Your task to perform on an android device: toggle location history Image 0: 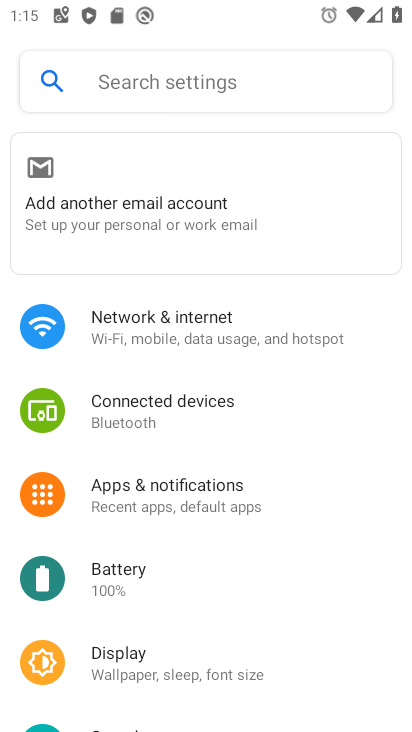
Step 0: drag from (212, 619) to (225, 160)
Your task to perform on an android device: toggle location history Image 1: 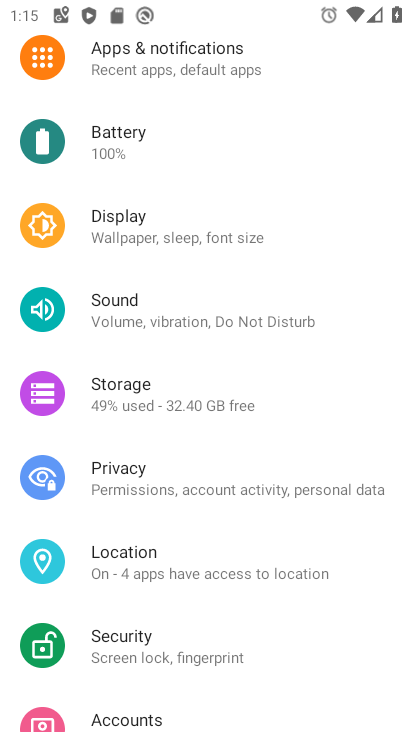
Step 1: click (253, 561)
Your task to perform on an android device: toggle location history Image 2: 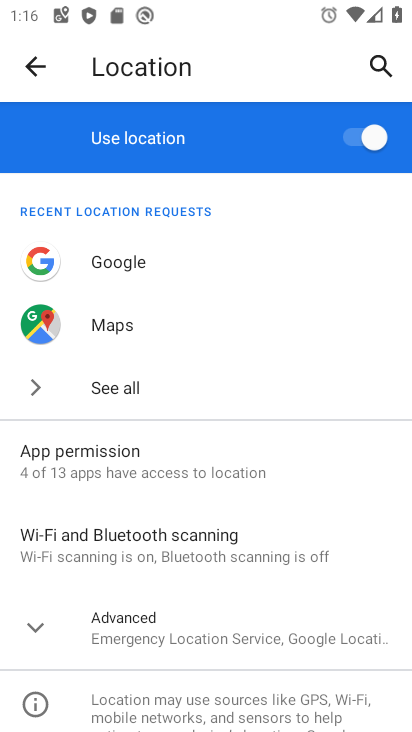
Step 2: drag from (253, 559) to (236, 246)
Your task to perform on an android device: toggle location history Image 3: 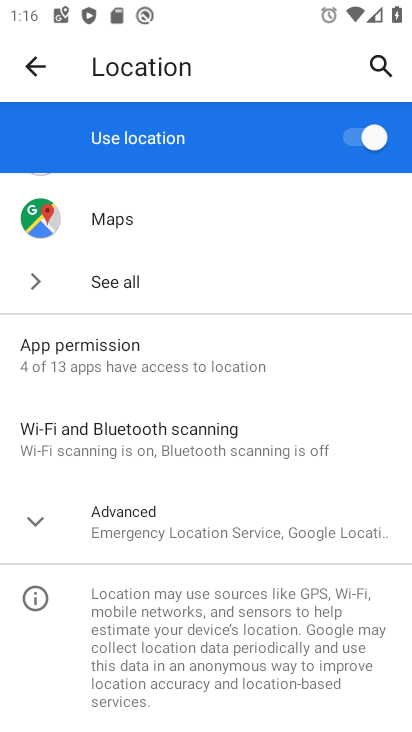
Step 3: click (40, 518)
Your task to perform on an android device: toggle location history Image 4: 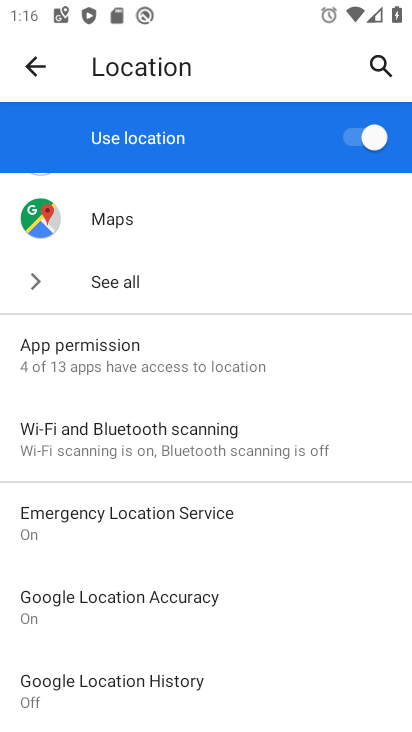
Step 4: click (208, 684)
Your task to perform on an android device: toggle location history Image 5: 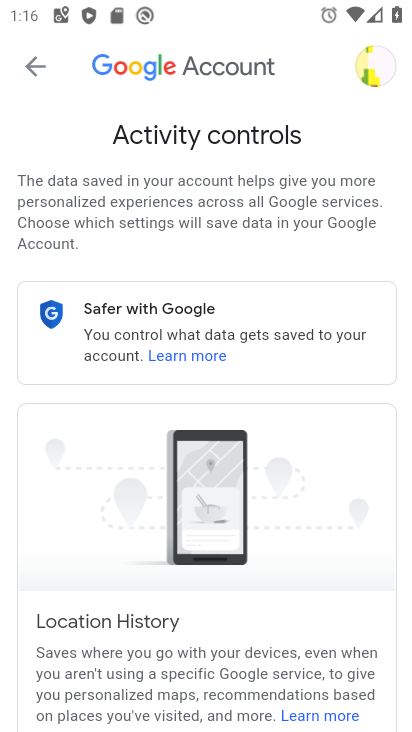
Step 5: drag from (304, 497) to (333, 115)
Your task to perform on an android device: toggle location history Image 6: 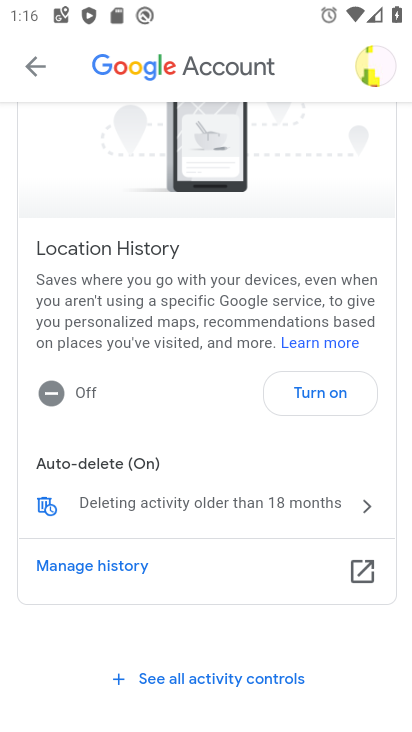
Step 6: click (362, 382)
Your task to perform on an android device: toggle location history Image 7: 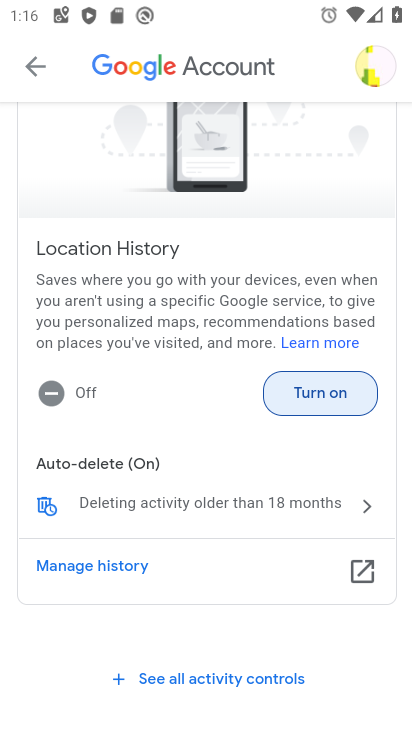
Step 7: click (347, 392)
Your task to perform on an android device: toggle location history Image 8: 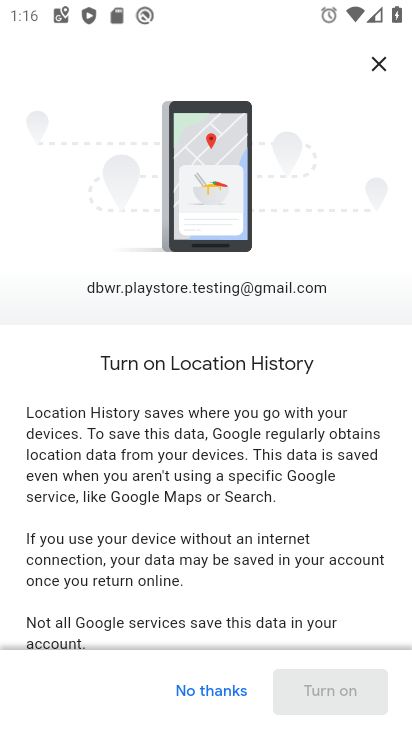
Step 8: drag from (281, 494) to (281, 110)
Your task to perform on an android device: toggle location history Image 9: 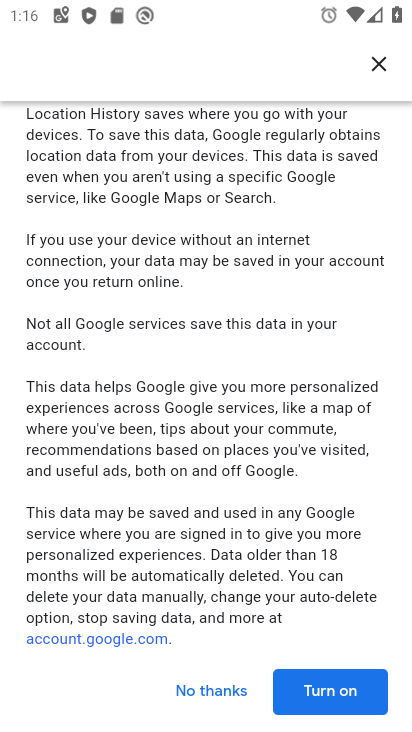
Step 9: click (349, 695)
Your task to perform on an android device: toggle location history Image 10: 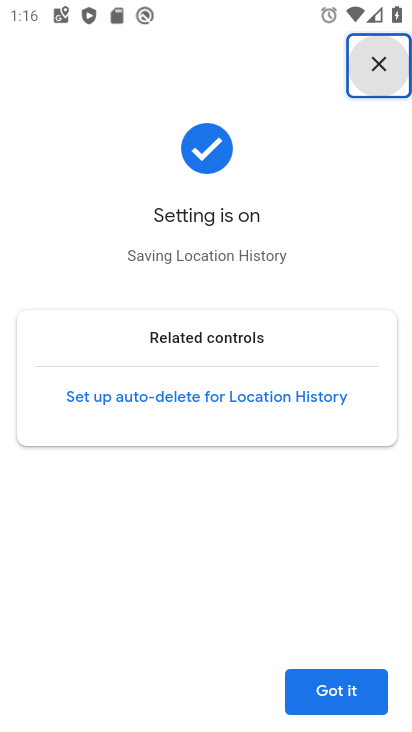
Step 10: click (354, 700)
Your task to perform on an android device: toggle location history Image 11: 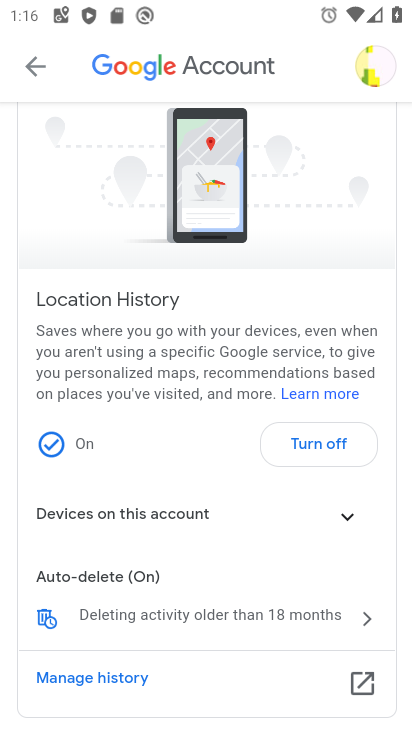
Step 11: task complete